Your task to perform on an android device: choose inbox layout in the gmail app Image 0: 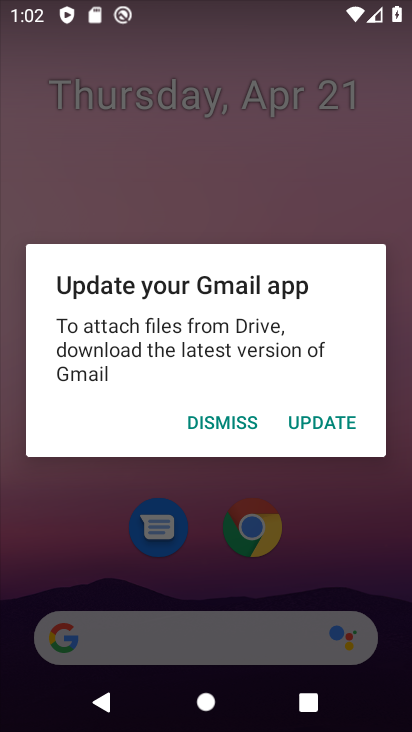
Step 0: press home button
Your task to perform on an android device: choose inbox layout in the gmail app Image 1: 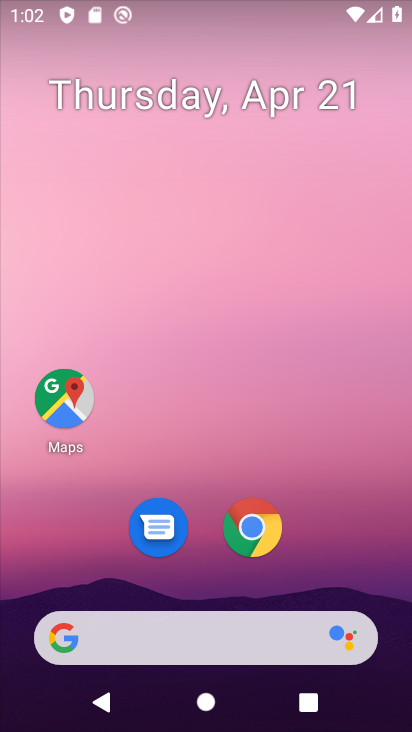
Step 1: drag from (351, 539) to (352, 110)
Your task to perform on an android device: choose inbox layout in the gmail app Image 2: 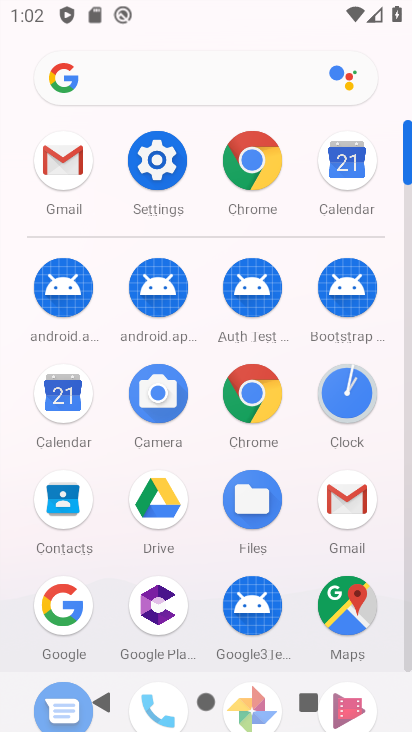
Step 2: click (351, 502)
Your task to perform on an android device: choose inbox layout in the gmail app Image 3: 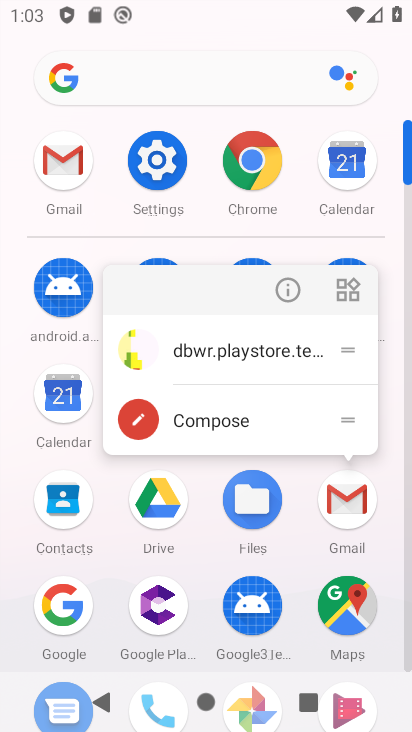
Step 3: click (358, 486)
Your task to perform on an android device: choose inbox layout in the gmail app Image 4: 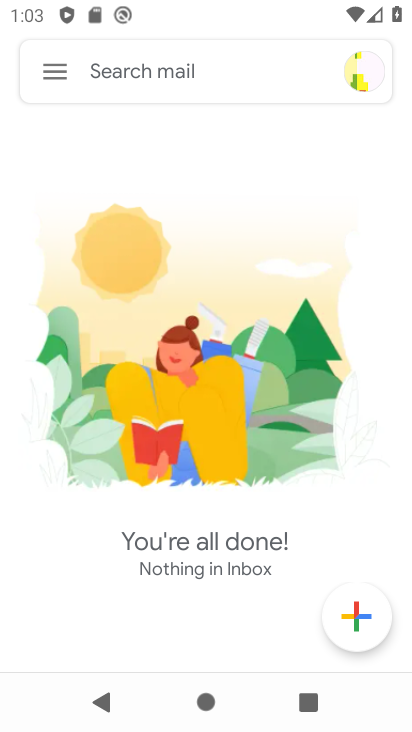
Step 4: click (71, 74)
Your task to perform on an android device: choose inbox layout in the gmail app Image 5: 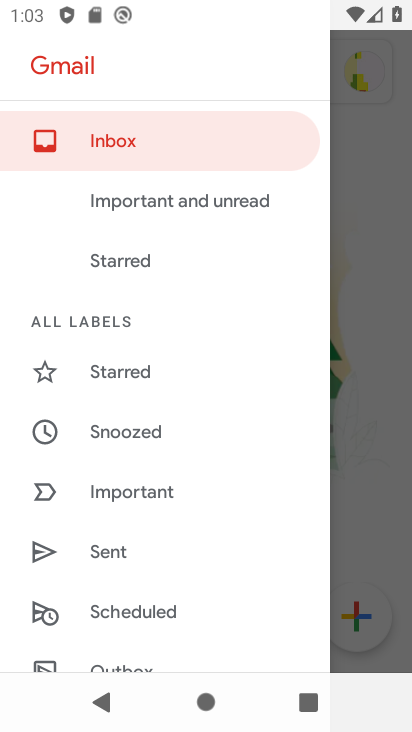
Step 5: drag from (226, 482) to (236, 357)
Your task to perform on an android device: choose inbox layout in the gmail app Image 6: 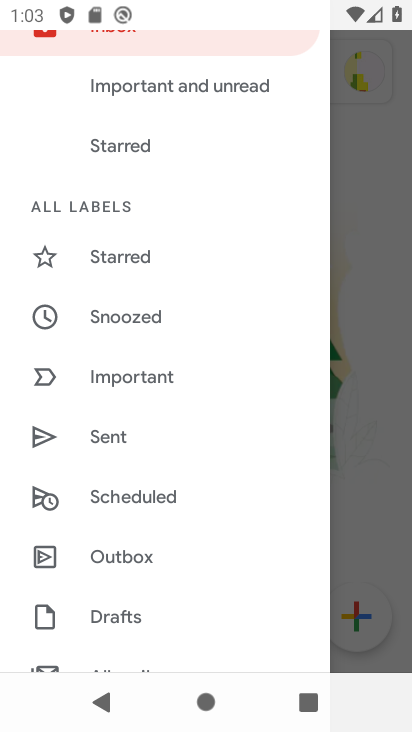
Step 6: drag from (240, 490) to (247, 370)
Your task to perform on an android device: choose inbox layout in the gmail app Image 7: 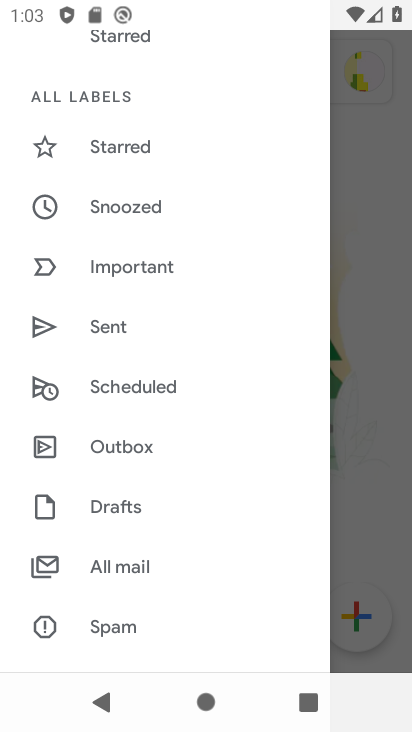
Step 7: drag from (270, 522) to (271, 384)
Your task to perform on an android device: choose inbox layout in the gmail app Image 8: 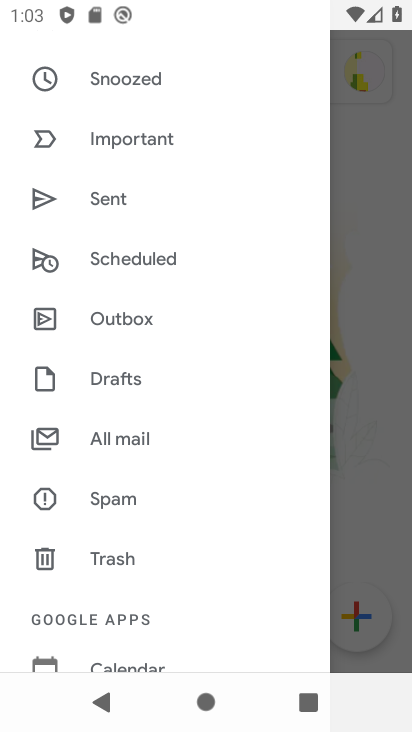
Step 8: drag from (269, 548) to (269, 376)
Your task to perform on an android device: choose inbox layout in the gmail app Image 9: 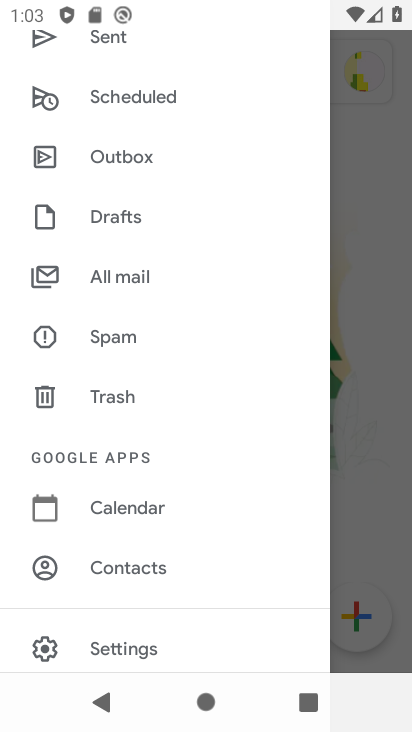
Step 9: drag from (246, 550) to (250, 394)
Your task to perform on an android device: choose inbox layout in the gmail app Image 10: 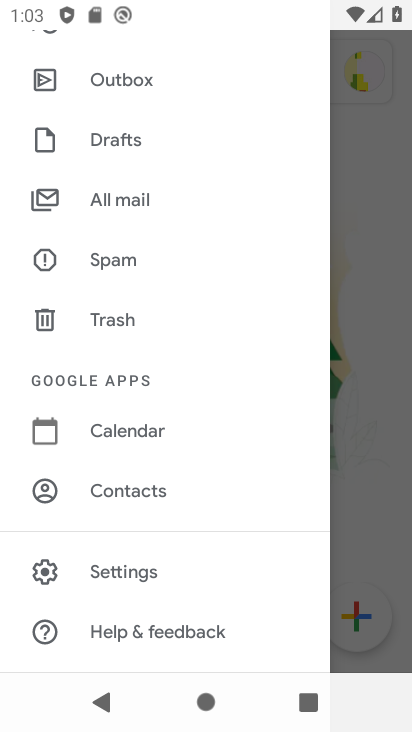
Step 10: click (149, 574)
Your task to perform on an android device: choose inbox layout in the gmail app Image 11: 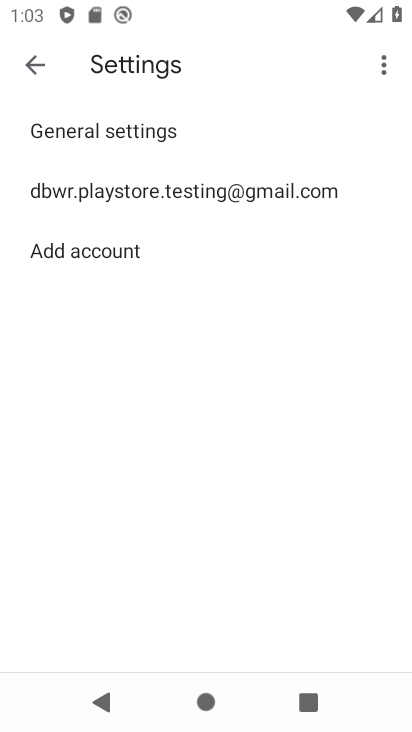
Step 11: click (244, 195)
Your task to perform on an android device: choose inbox layout in the gmail app Image 12: 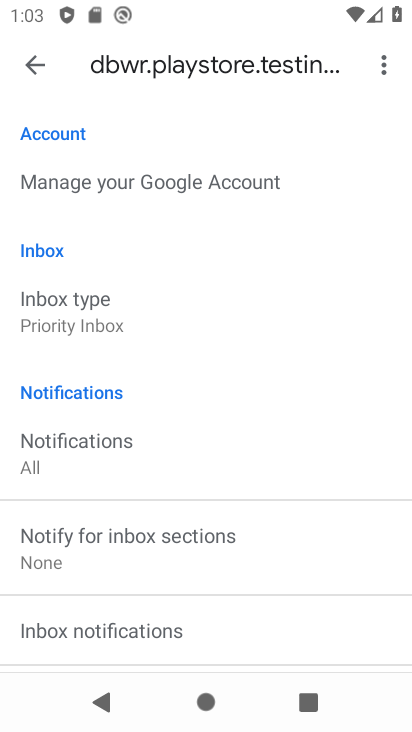
Step 12: drag from (315, 579) to (316, 379)
Your task to perform on an android device: choose inbox layout in the gmail app Image 13: 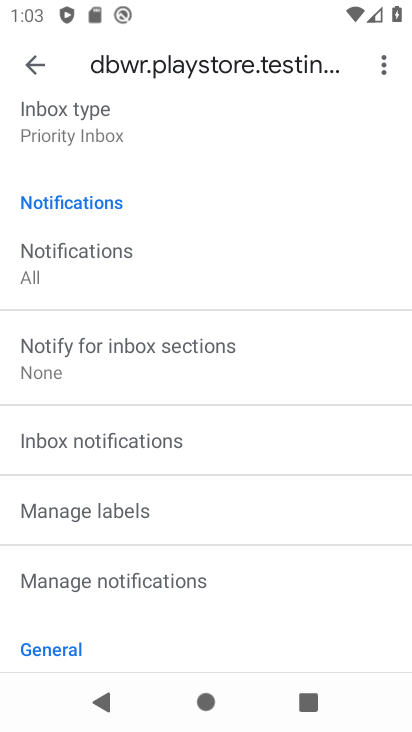
Step 13: drag from (315, 556) to (340, 359)
Your task to perform on an android device: choose inbox layout in the gmail app Image 14: 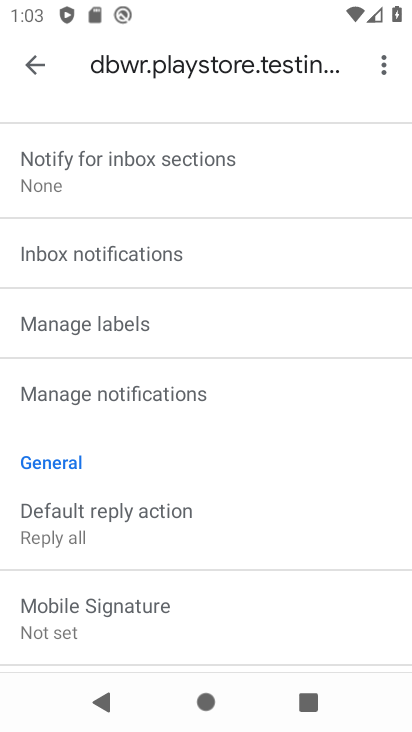
Step 14: drag from (325, 511) to (327, 348)
Your task to perform on an android device: choose inbox layout in the gmail app Image 15: 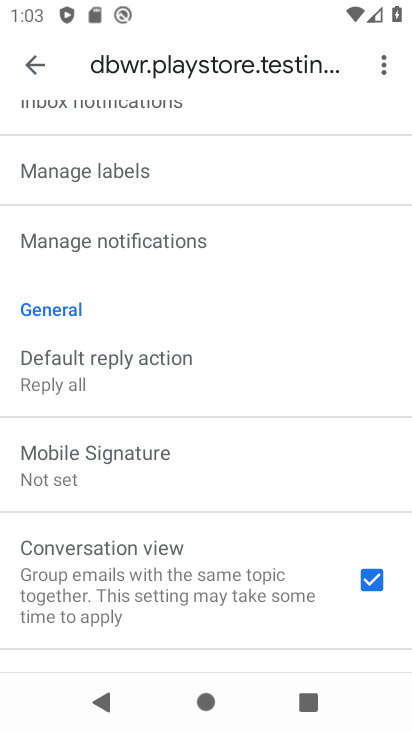
Step 15: drag from (315, 528) to (319, 358)
Your task to perform on an android device: choose inbox layout in the gmail app Image 16: 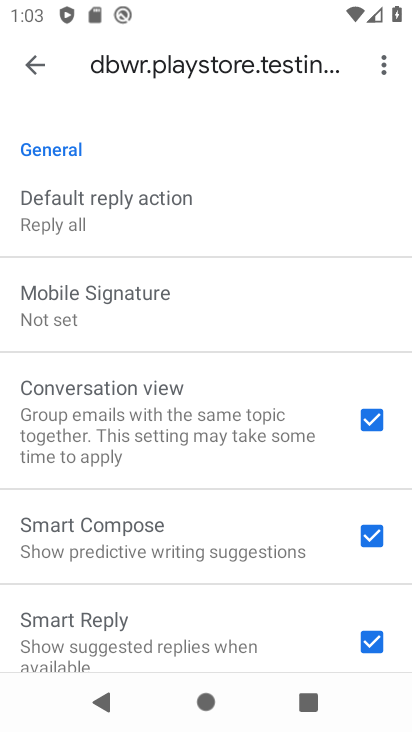
Step 16: drag from (294, 601) to (298, 398)
Your task to perform on an android device: choose inbox layout in the gmail app Image 17: 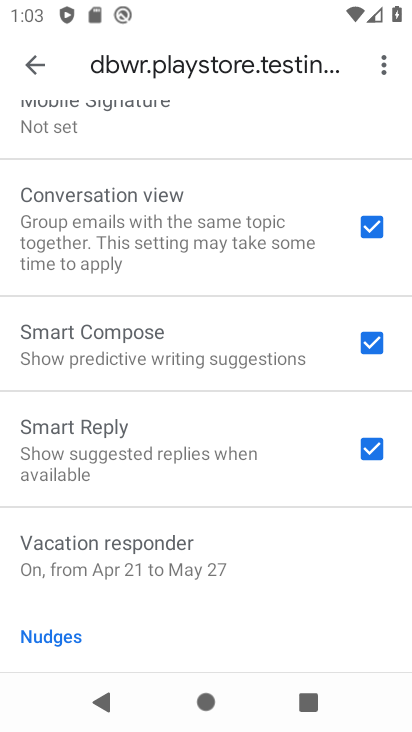
Step 17: drag from (291, 568) to (290, 428)
Your task to perform on an android device: choose inbox layout in the gmail app Image 18: 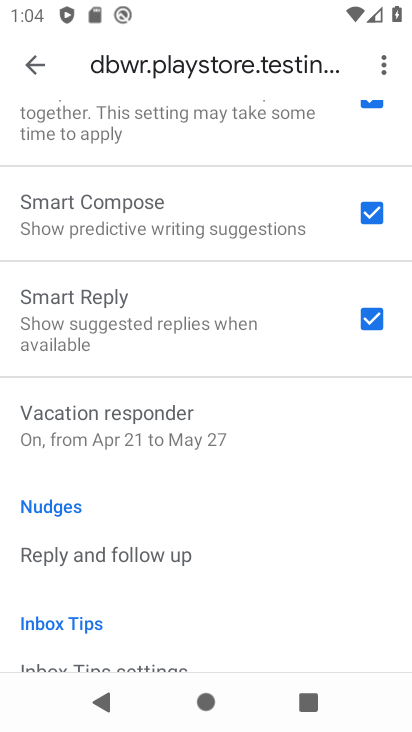
Step 18: drag from (281, 306) to (256, 497)
Your task to perform on an android device: choose inbox layout in the gmail app Image 19: 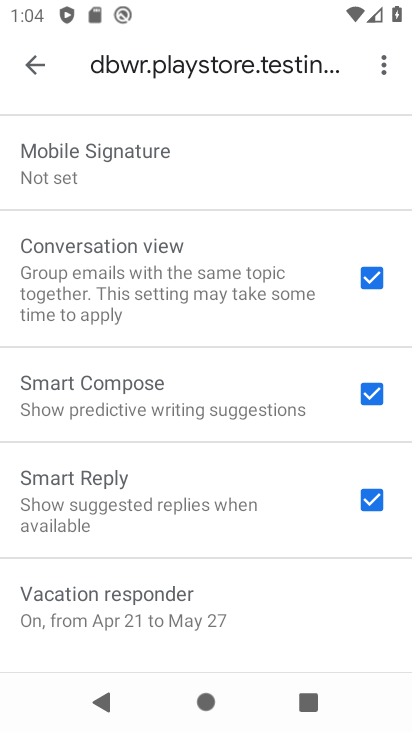
Step 19: drag from (297, 232) to (293, 483)
Your task to perform on an android device: choose inbox layout in the gmail app Image 20: 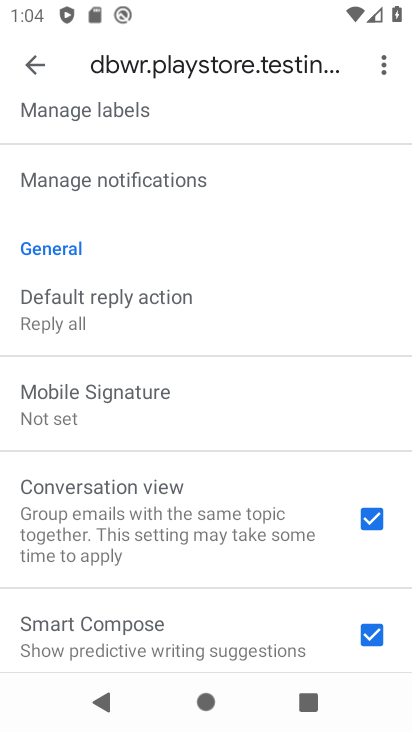
Step 20: drag from (283, 238) to (284, 427)
Your task to perform on an android device: choose inbox layout in the gmail app Image 21: 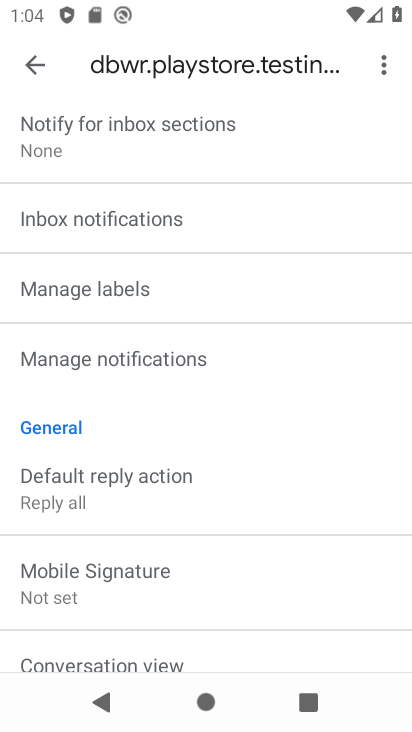
Step 21: drag from (284, 221) to (277, 427)
Your task to perform on an android device: choose inbox layout in the gmail app Image 22: 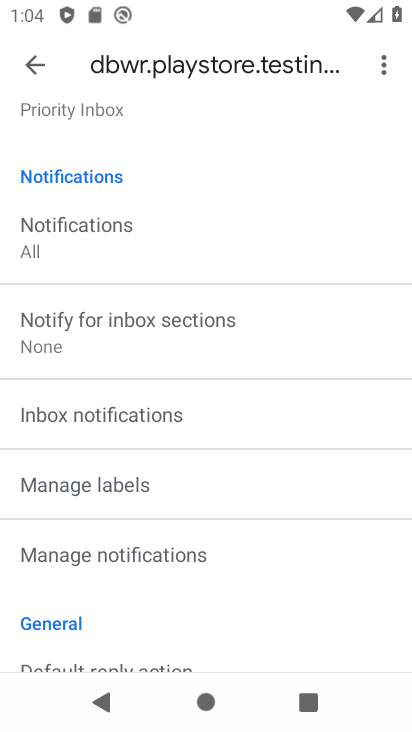
Step 22: drag from (291, 247) to (286, 421)
Your task to perform on an android device: choose inbox layout in the gmail app Image 23: 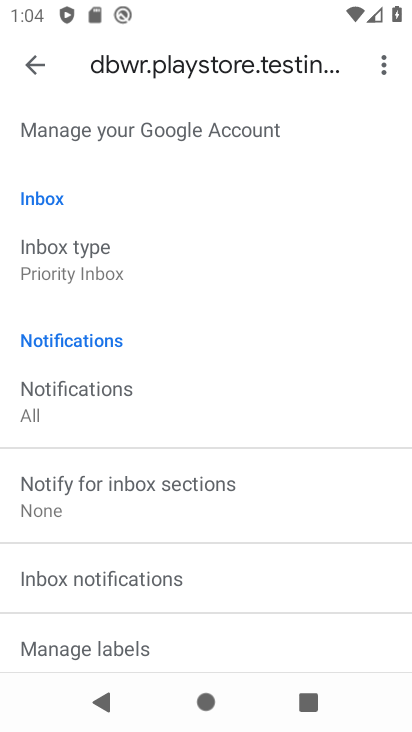
Step 23: click (83, 263)
Your task to perform on an android device: choose inbox layout in the gmail app Image 24: 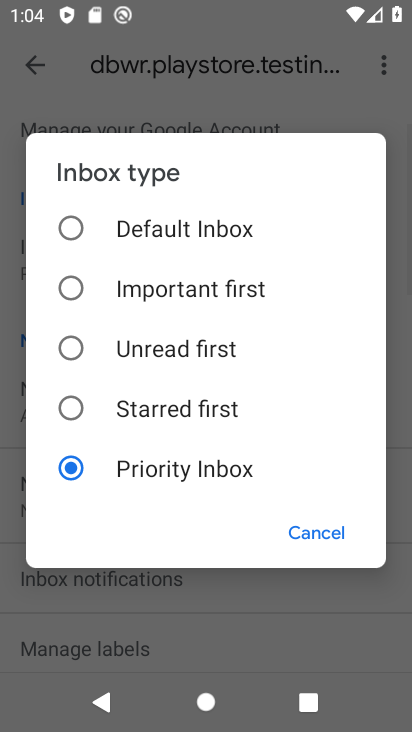
Step 24: click (153, 353)
Your task to perform on an android device: choose inbox layout in the gmail app Image 25: 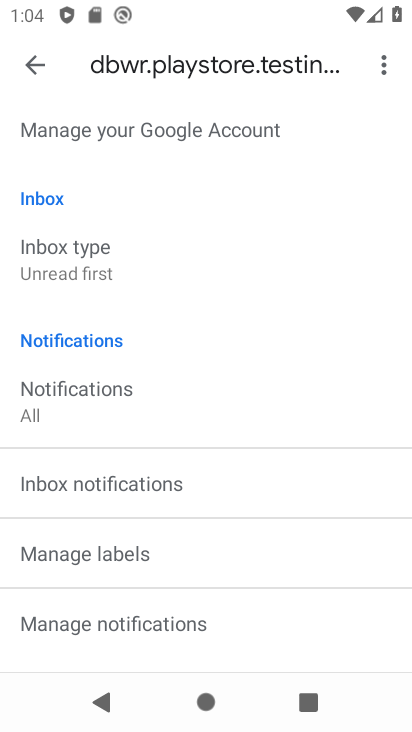
Step 25: task complete